Your task to perform on an android device: toggle translation in the chrome app Image 0: 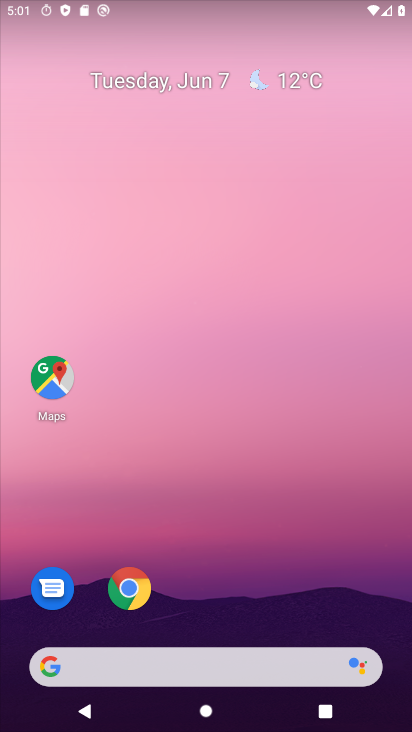
Step 0: drag from (181, 636) to (180, 50)
Your task to perform on an android device: toggle translation in the chrome app Image 1: 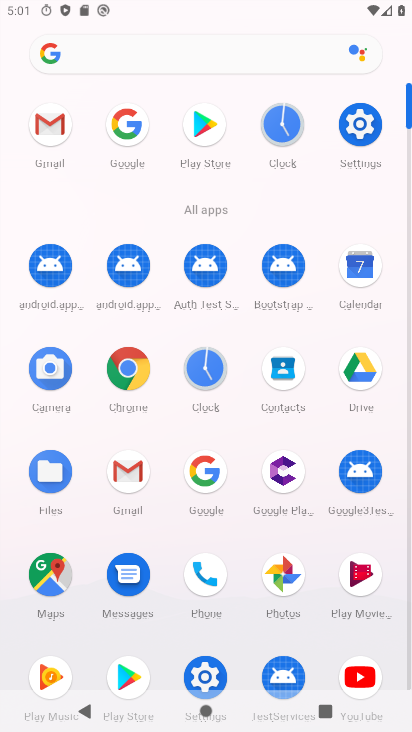
Step 1: click (140, 406)
Your task to perform on an android device: toggle translation in the chrome app Image 2: 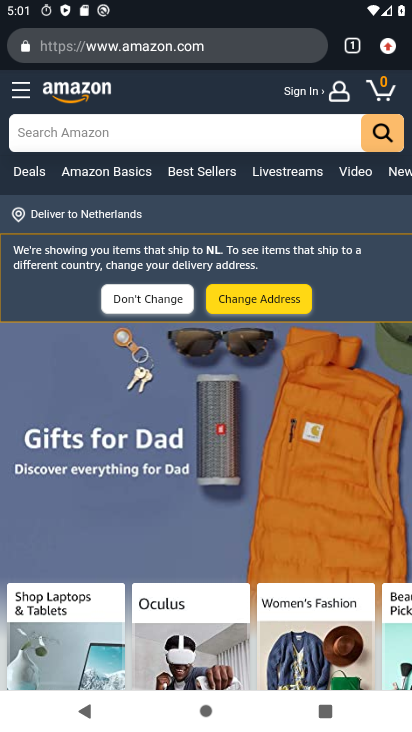
Step 2: click (389, 45)
Your task to perform on an android device: toggle translation in the chrome app Image 3: 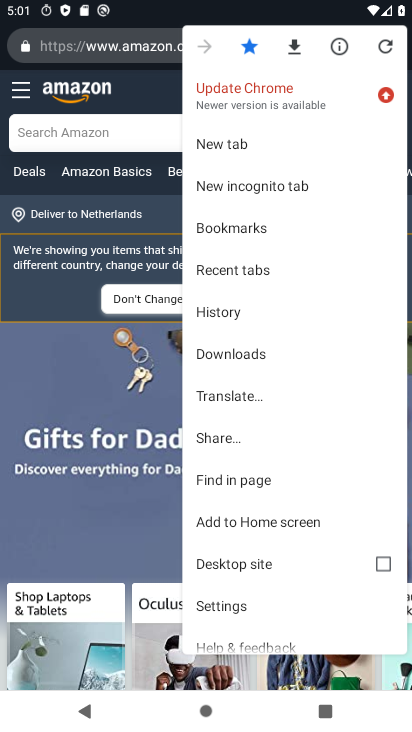
Step 3: click (235, 606)
Your task to perform on an android device: toggle translation in the chrome app Image 4: 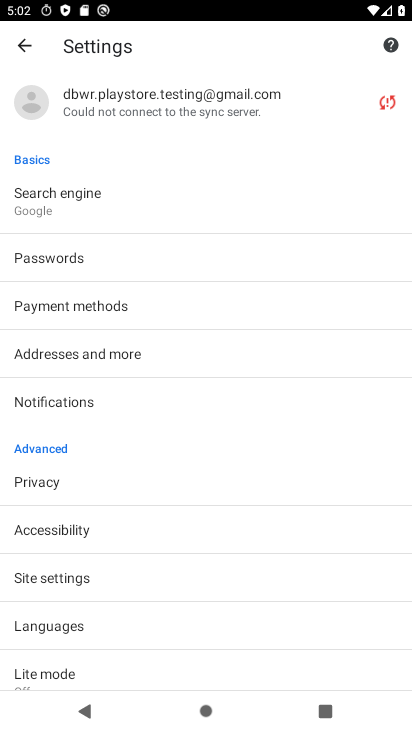
Step 4: click (66, 579)
Your task to perform on an android device: toggle translation in the chrome app Image 5: 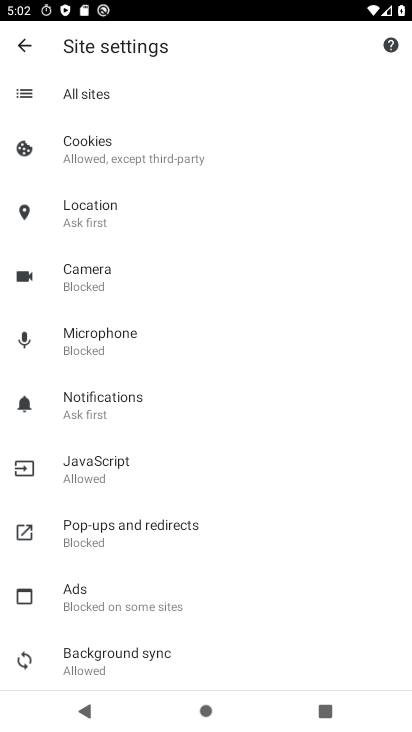
Step 5: click (24, 39)
Your task to perform on an android device: toggle translation in the chrome app Image 6: 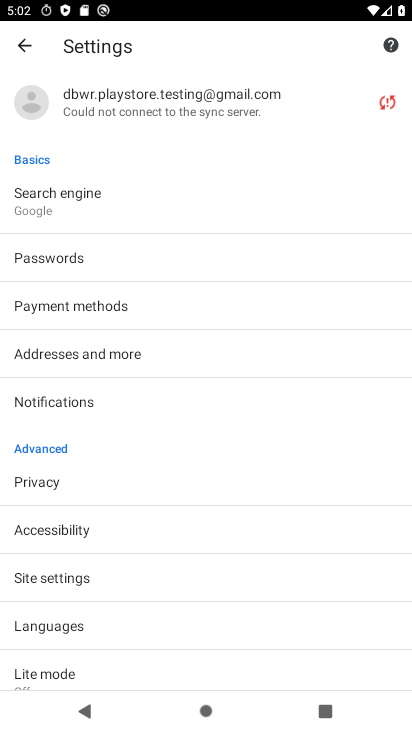
Step 6: drag from (79, 657) to (85, 620)
Your task to perform on an android device: toggle translation in the chrome app Image 7: 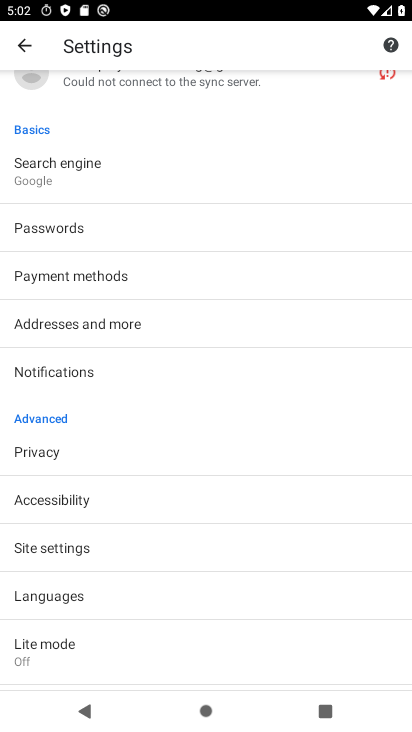
Step 7: click (65, 591)
Your task to perform on an android device: toggle translation in the chrome app Image 8: 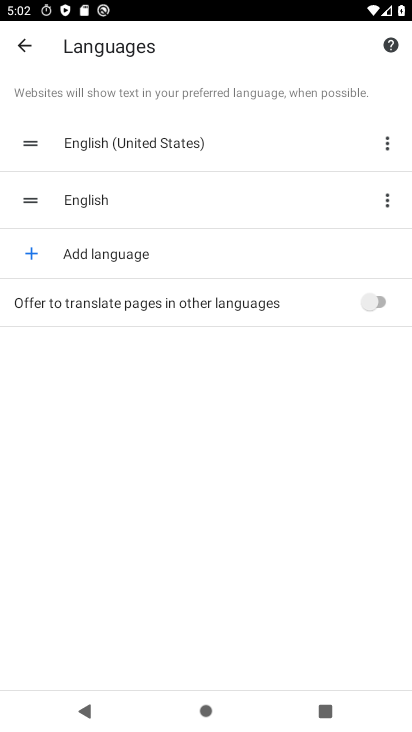
Step 8: click (374, 316)
Your task to perform on an android device: toggle translation in the chrome app Image 9: 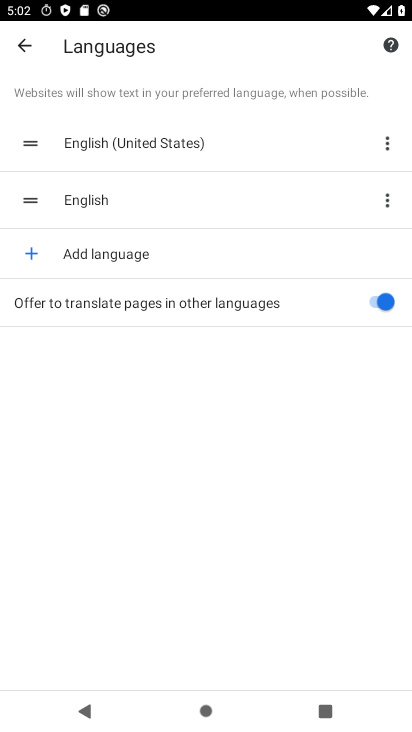
Step 9: task complete